Your task to perform on an android device: Open location settings Image 0: 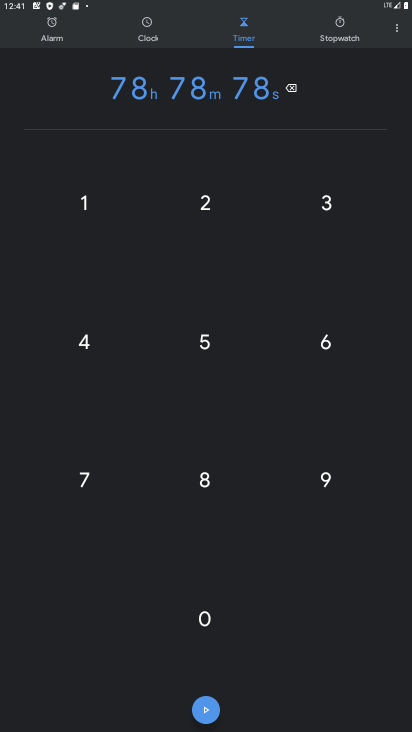
Step 0: press home button
Your task to perform on an android device: Open location settings Image 1: 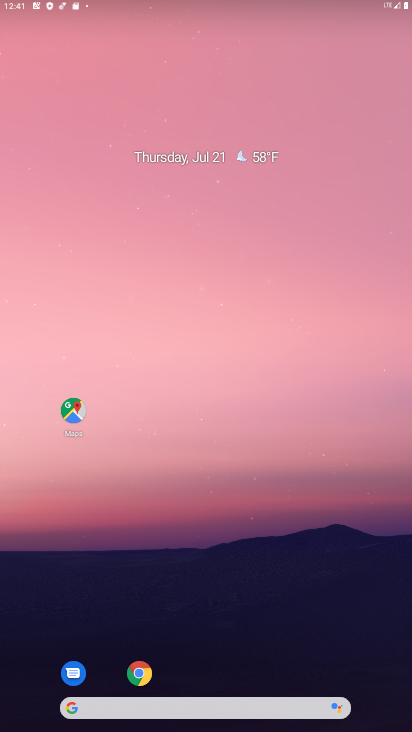
Step 1: drag from (252, 511) to (252, 262)
Your task to perform on an android device: Open location settings Image 2: 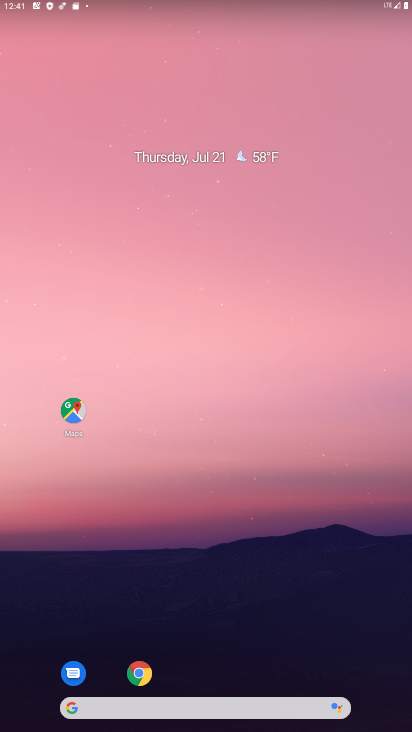
Step 2: drag from (271, 585) to (286, 178)
Your task to perform on an android device: Open location settings Image 3: 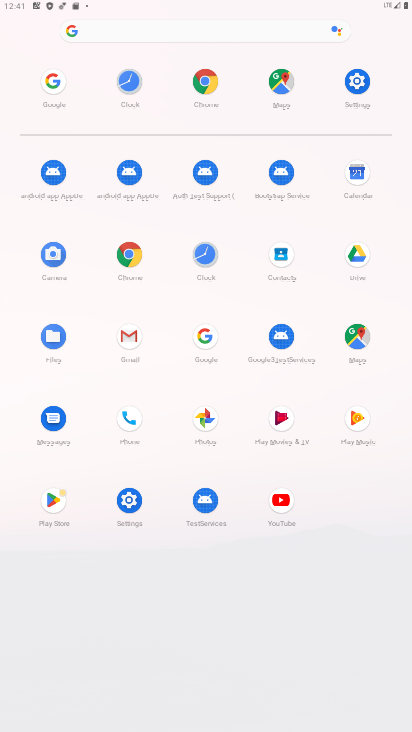
Step 3: click (364, 74)
Your task to perform on an android device: Open location settings Image 4: 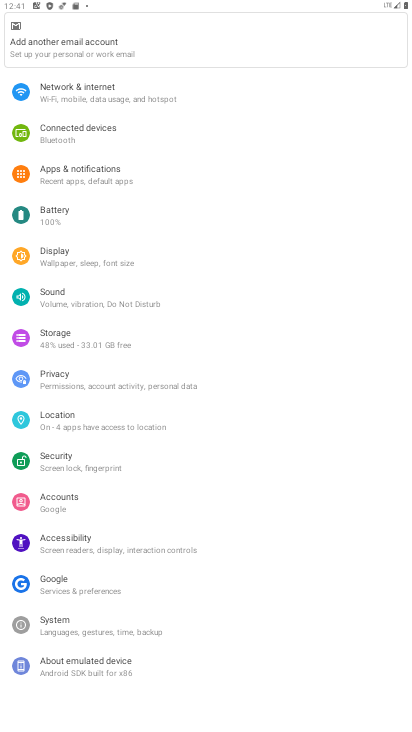
Step 4: click (86, 409)
Your task to perform on an android device: Open location settings Image 5: 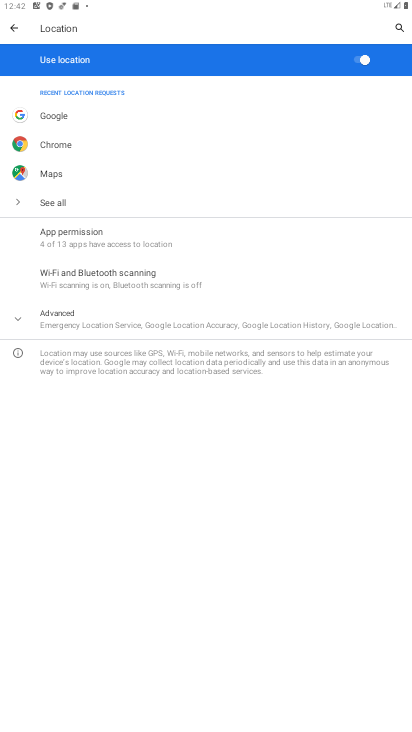
Step 5: task complete